Your task to perform on an android device: turn off smart reply in the gmail app Image 0: 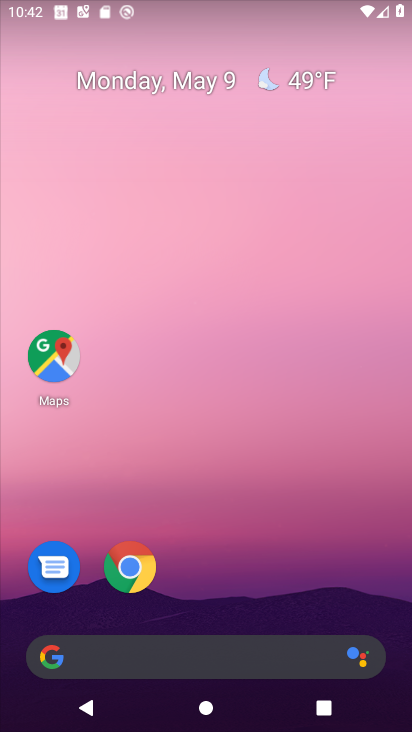
Step 0: drag from (182, 638) to (162, 173)
Your task to perform on an android device: turn off smart reply in the gmail app Image 1: 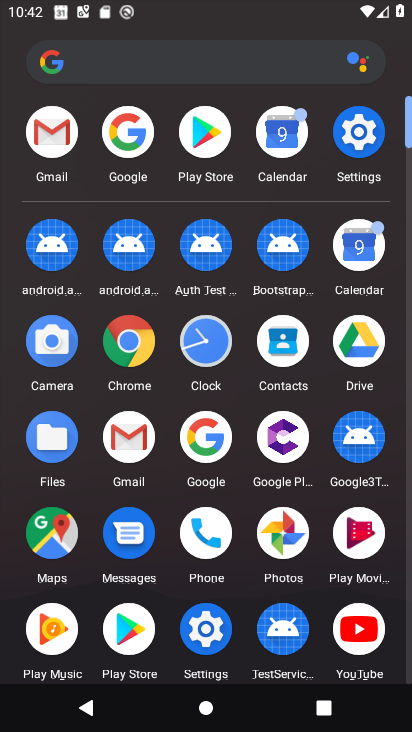
Step 1: click (60, 144)
Your task to perform on an android device: turn off smart reply in the gmail app Image 2: 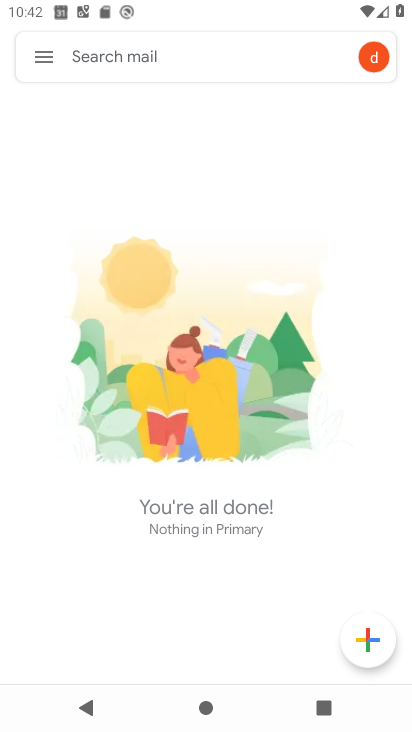
Step 2: click (41, 62)
Your task to perform on an android device: turn off smart reply in the gmail app Image 3: 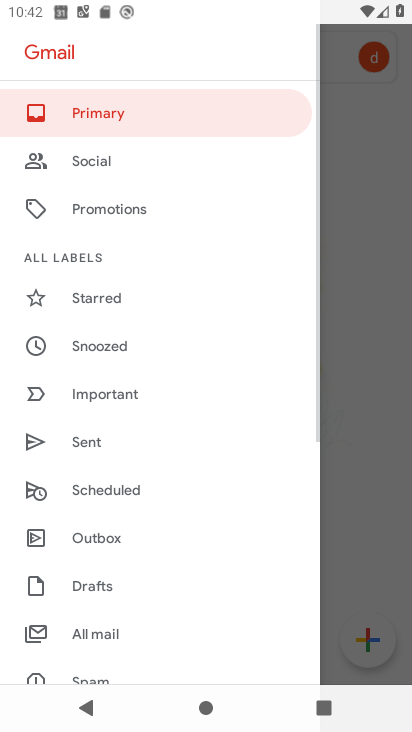
Step 3: drag from (122, 644) to (118, 309)
Your task to perform on an android device: turn off smart reply in the gmail app Image 4: 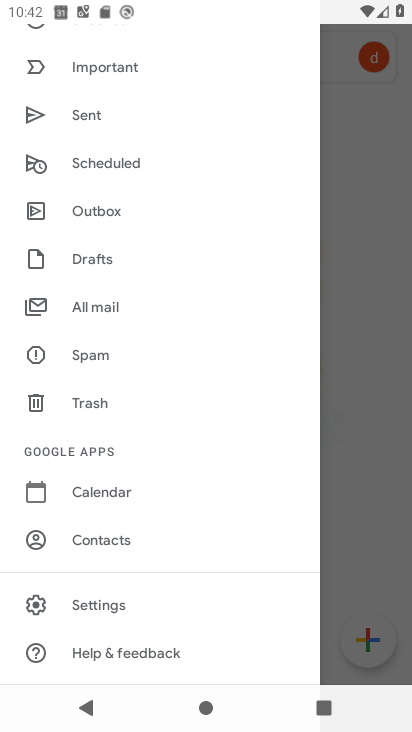
Step 4: click (81, 609)
Your task to perform on an android device: turn off smart reply in the gmail app Image 5: 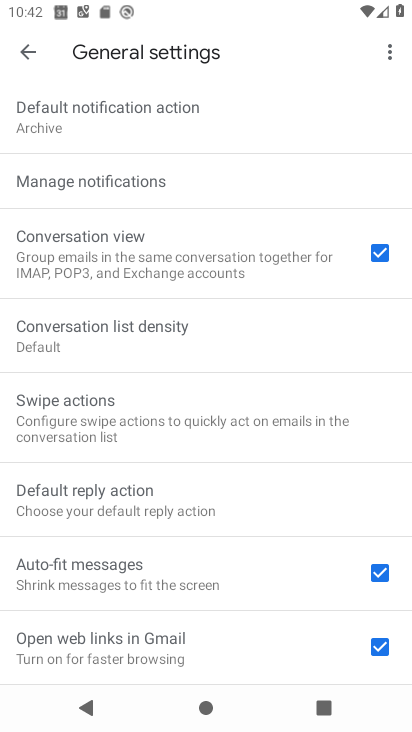
Step 5: drag from (132, 662) to (100, 393)
Your task to perform on an android device: turn off smart reply in the gmail app Image 6: 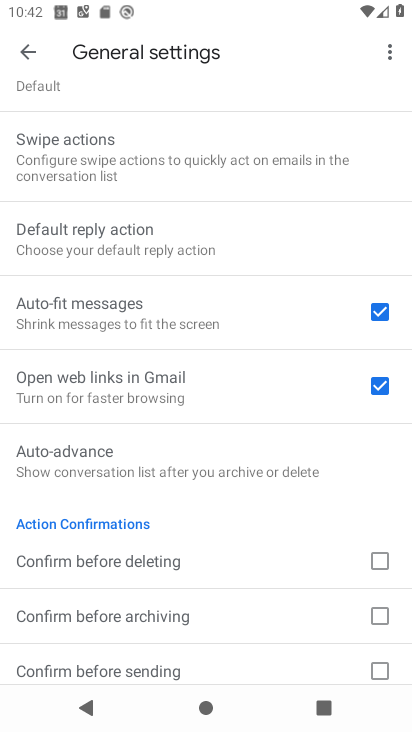
Step 6: click (28, 46)
Your task to perform on an android device: turn off smart reply in the gmail app Image 7: 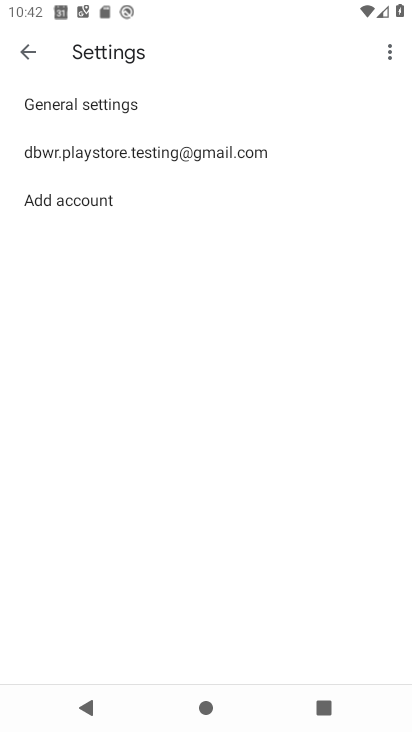
Step 7: click (96, 160)
Your task to perform on an android device: turn off smart reply in the gmail app Image 8: 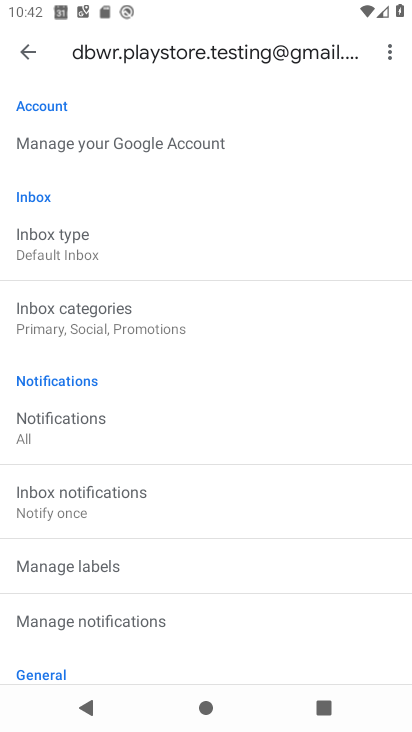
Step 8: task complete